Your task to perform on an android device: Go to location settings Image 0: 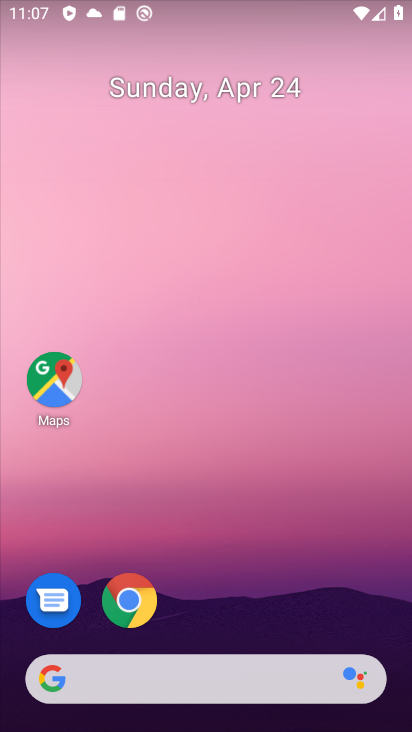
Step 0: drag from (258, 617) to (174, 63)
Your task to perform on an android device: Go to location settings Image 1: 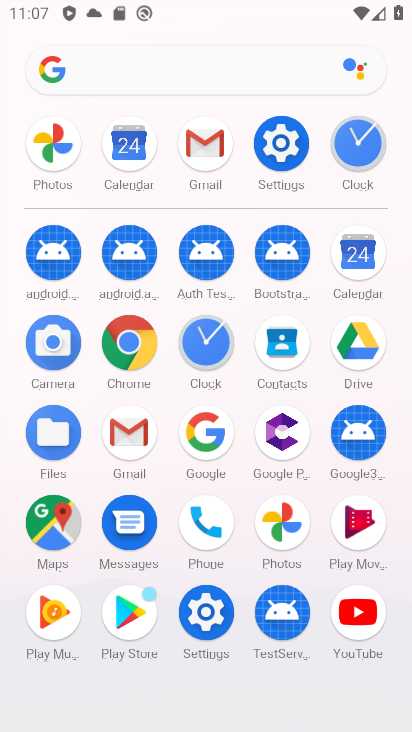
Step 1: click (285, 139)
Your task to perform on an android device: Go to location settings Image 2: 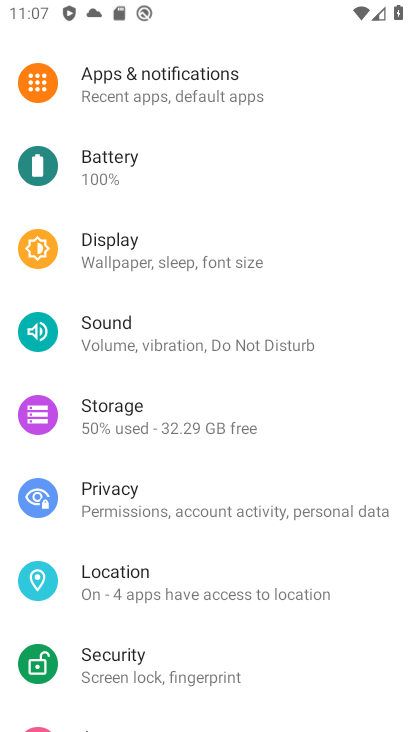
Step 2: click (122, 572)
Your task to perform on an android device: Go to location settings Image 3: 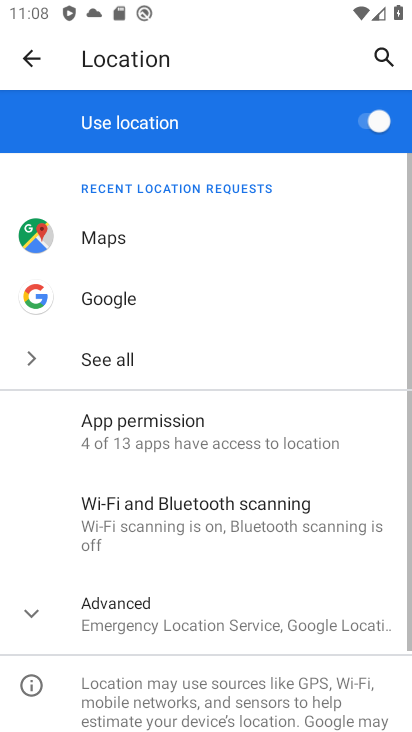
Step 3: task complete